Your task to perform on an android device: What's the weather? Image 0: 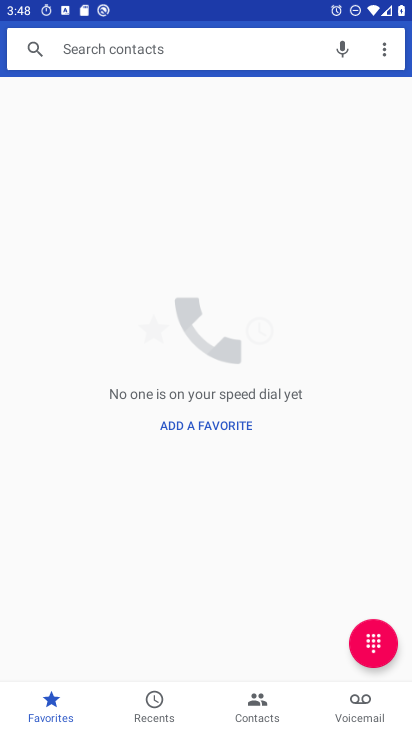
Step 0: press home button
Your task to perform on an android device: What's the weather? Image 1: 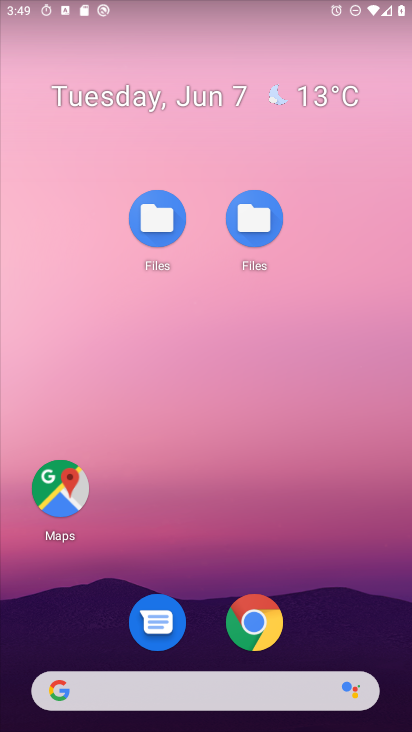
Step 1: click (210, 702)
Your task to perform on an android device: What's the weather? Image 2: 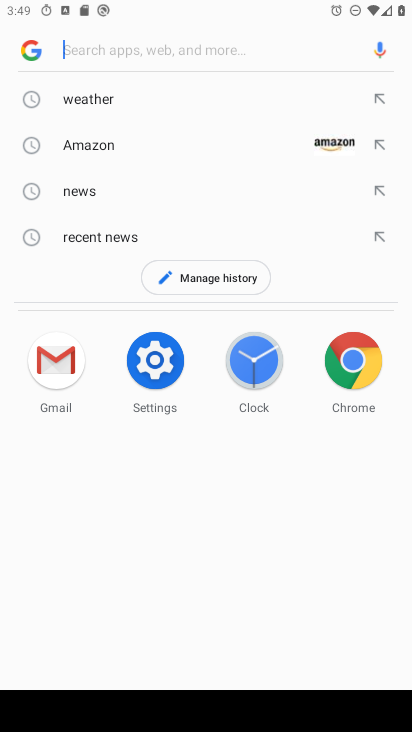
Step 2: click (148, 92)
Your task to perform on an android device: What's the weather? Image 3: 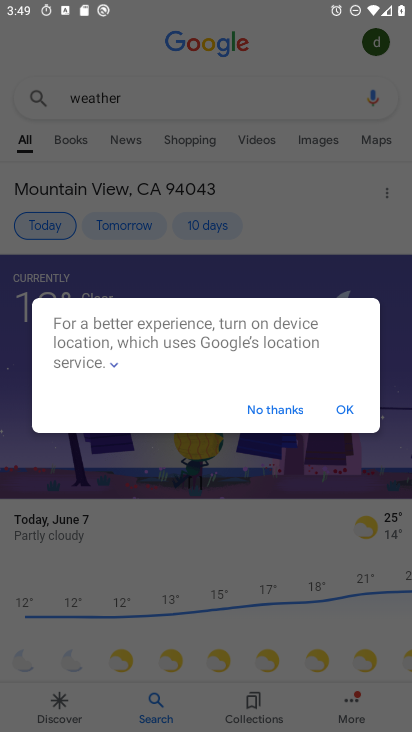
Step 3: click (256, 401)
Your task to perform on an android device: What's the weather? Image 4: 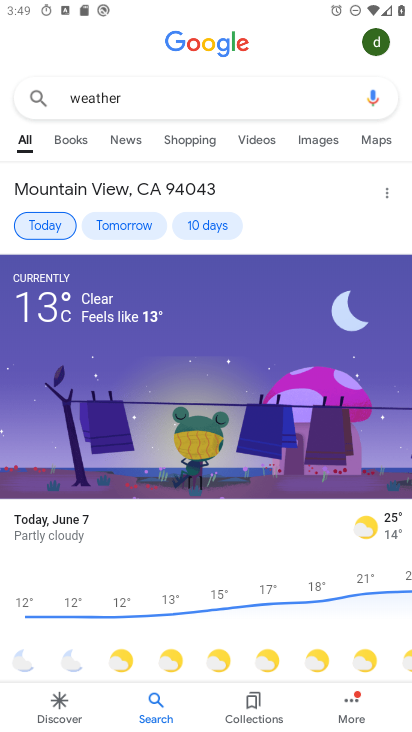
Step 4: click (263, 410)
Your task to perform on an android device: What's the weather? Image 5: 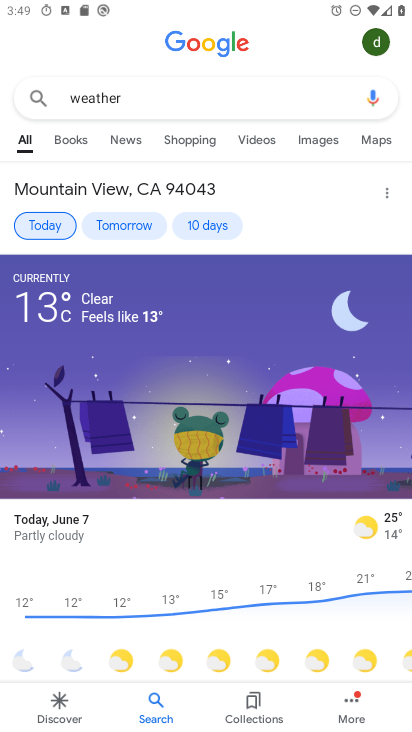
Step 5: task complete